Your task to perform on an android device: Go to Google maps Image 0: 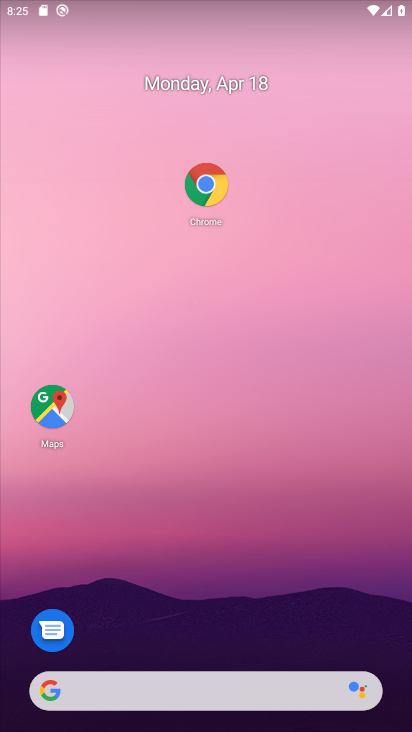
Step 0: drag from (89, 480) to (407, 564)
Your task to perform on an android device: Go to Google maps Image 1: 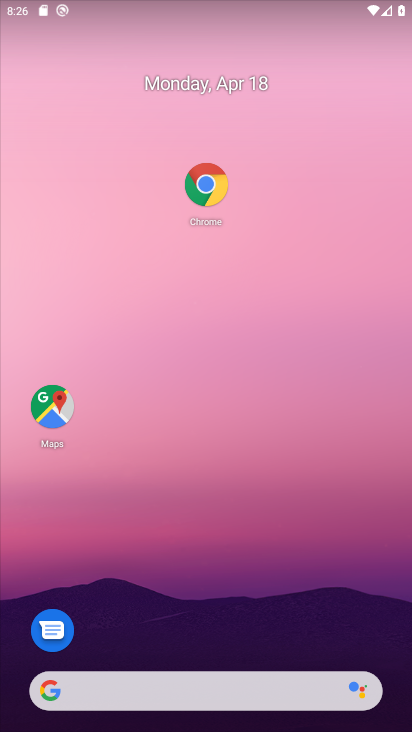
Step 1: drag from (289, 355) to (327, 232)
Your task to perform on an android device: Go to Google maps Image 2: 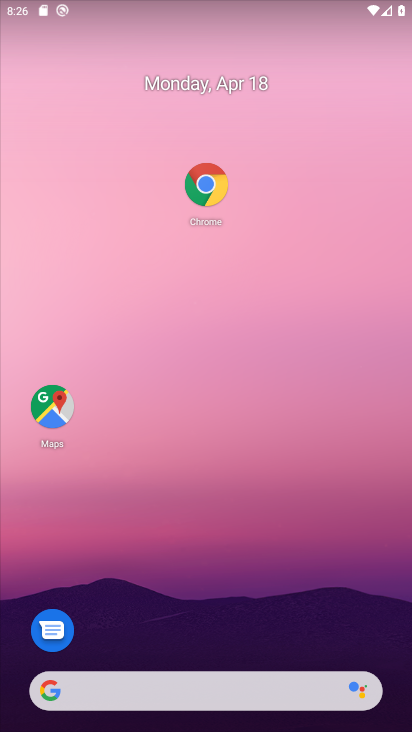
Step 2: click (48, 403)
Your task to perform on an android device: Go to Google maps Image 3: 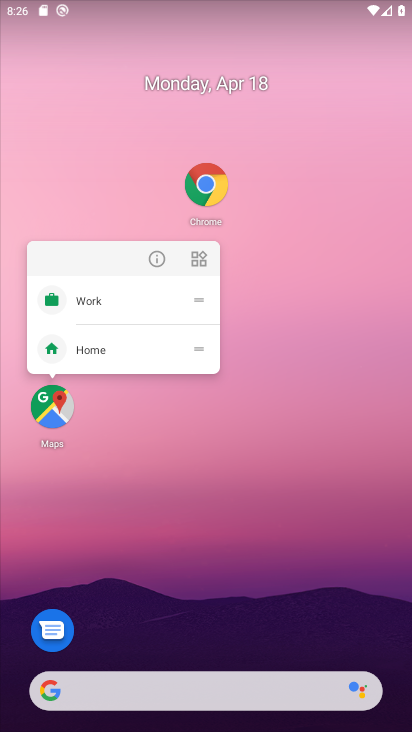
Step 3: click (52, 409)
Your task to perform on an android device: Go to Google maps Image 4: 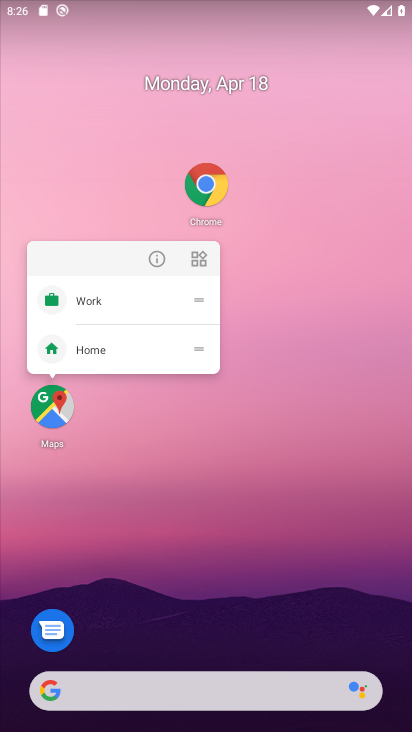
Step 4: click (56, 413)
Your task to perform on an android device: Go to Google maps Image 5: 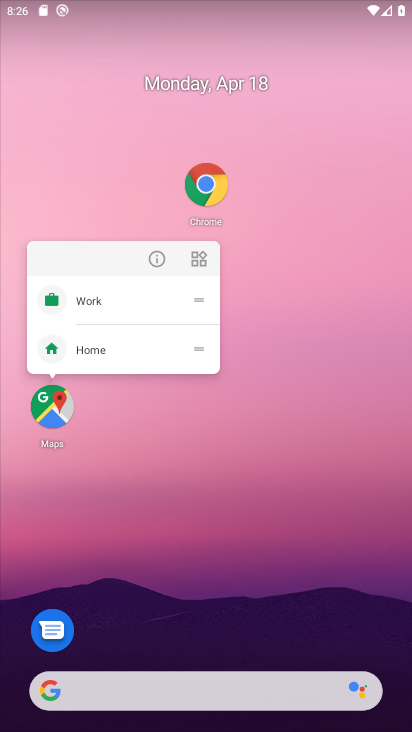
Step 5: click (43, 403)
Your task to perform on an android device: Go to Google maps Image 6: 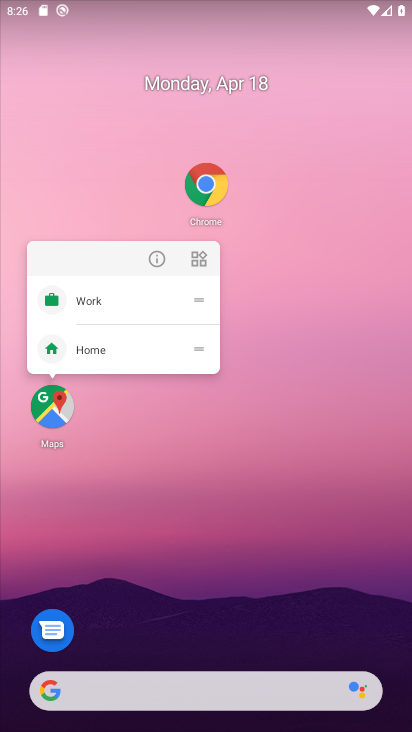
Step 6: click (57, 406)
Your task to perform on an android device: Go to Google maps Image 7: 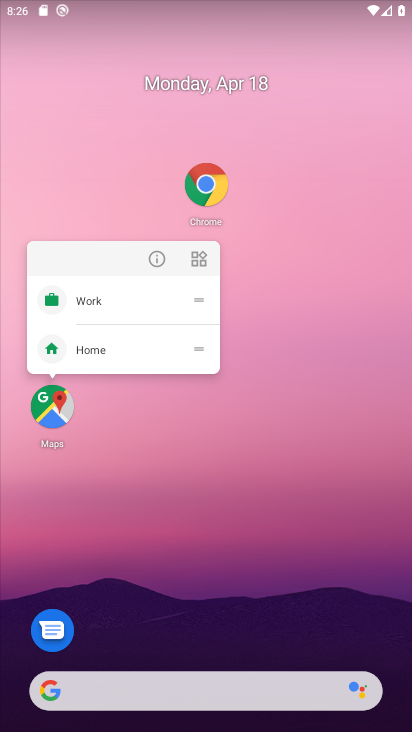
Step 7: click (59, 443)
Your task to perform on an android device: Go to Google maps Image 8: 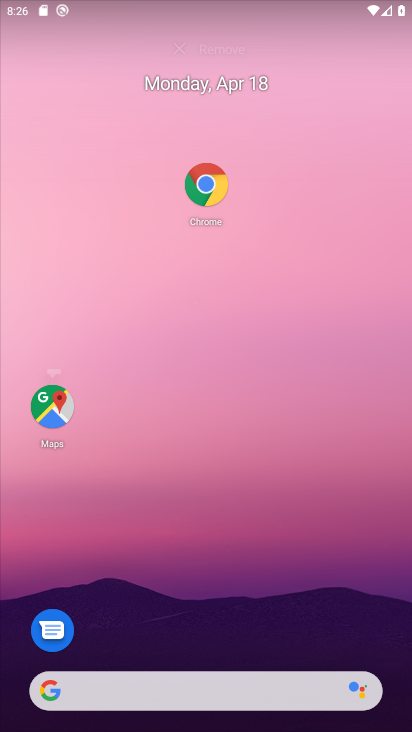
Step 8: click (54, 404)
Your task to perform on an android device: Go to Google maps Image 9: 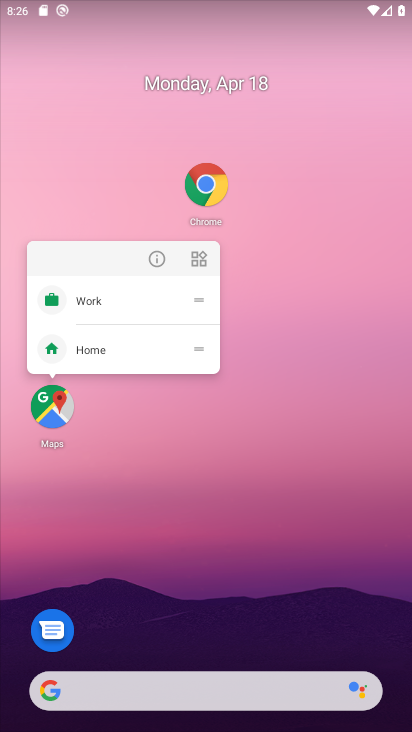
Step 9: click (58, 399)
Your task to perform on an android device: Go to Google maps Image 10: 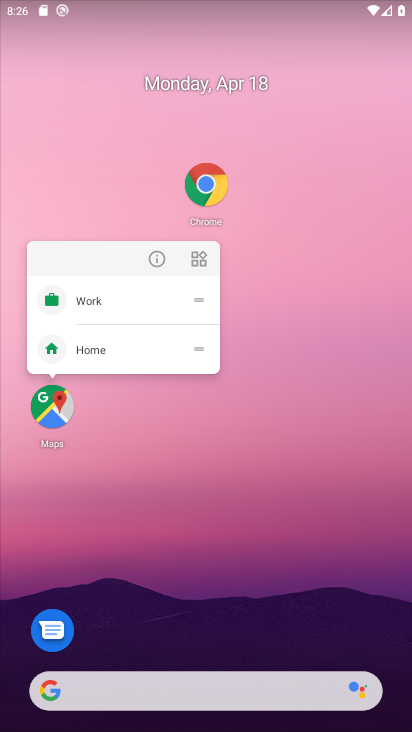
Step 10: click (59, 411)
Your task to perform on an android device: Go to Google maps Image 11: 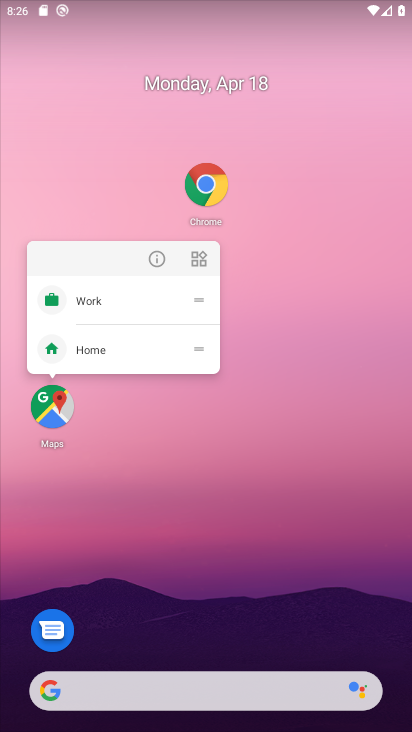
Step 11: click (61, 420)
Your task to perform on an android device: Go to Google maps Image 12: 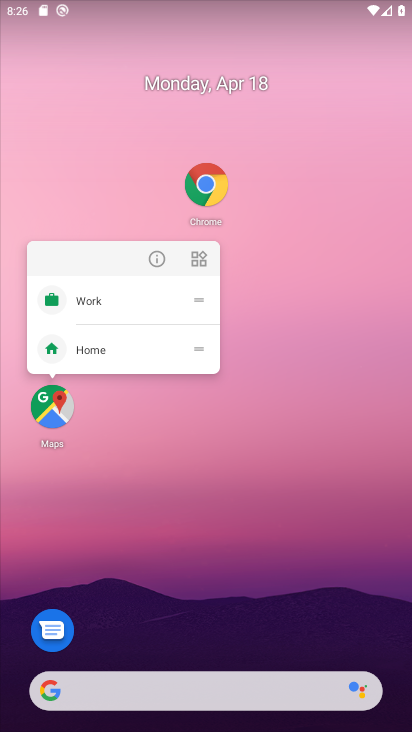
Step 12: click (52, 411)
Your task to perform on an android device: Go to Google maps Image 13: 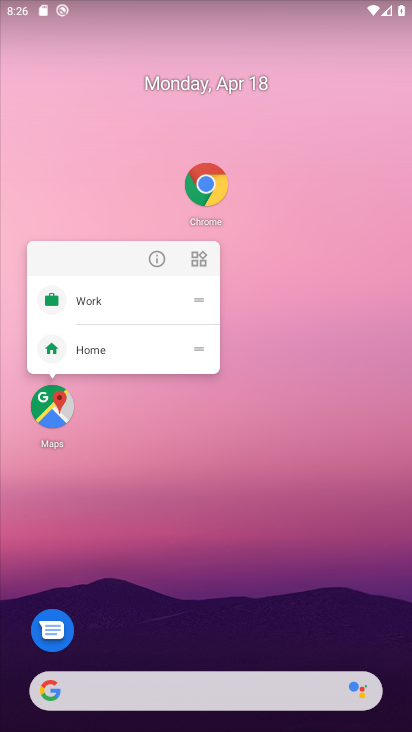
Step 13: click (51, 419)
Your task to perform on an android device: Go to Google maps Image 14: 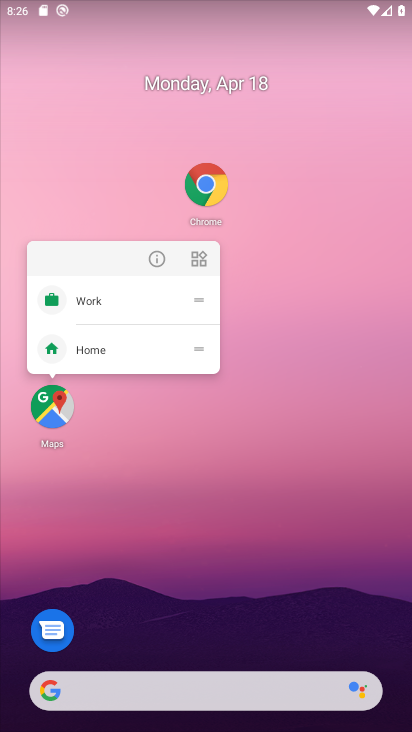
Step 14: click (51, 416)
Your task to perform on an android device: Go to Google maps Image 15: 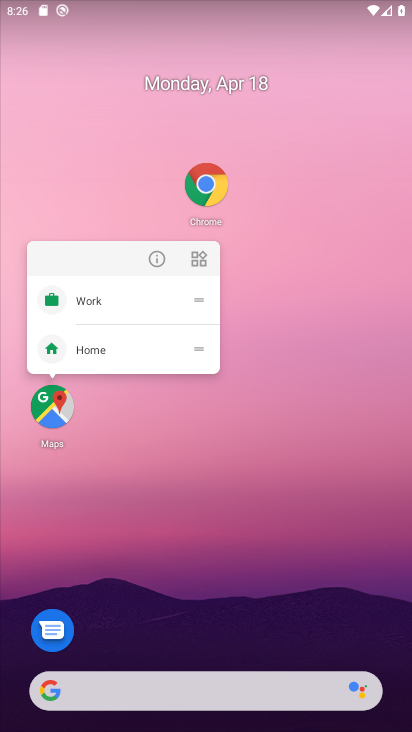
Step 15: click (51, 416)
Your task to perform on an android device: Go to Google maps Image 16: 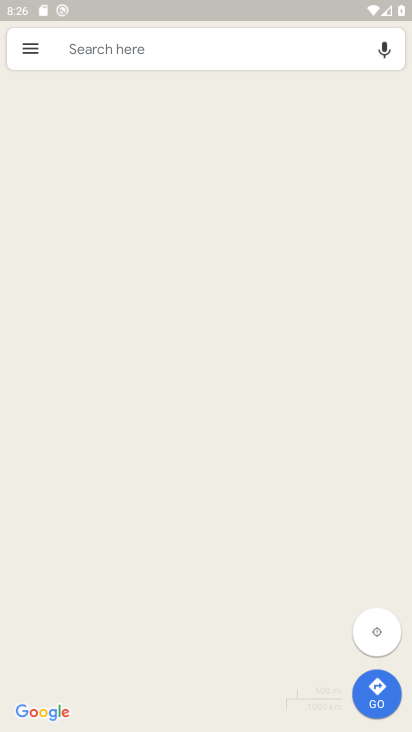
Step 16: task complete